Your task to perform on an android device: move a message to another label in the gmail app Image 0: 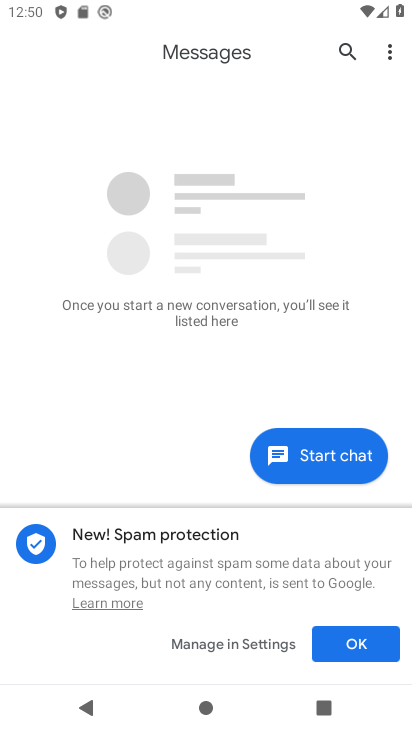
Step 0: press home button
Your task to perform on an android device: move a message to another label in the gmail app Image 1: 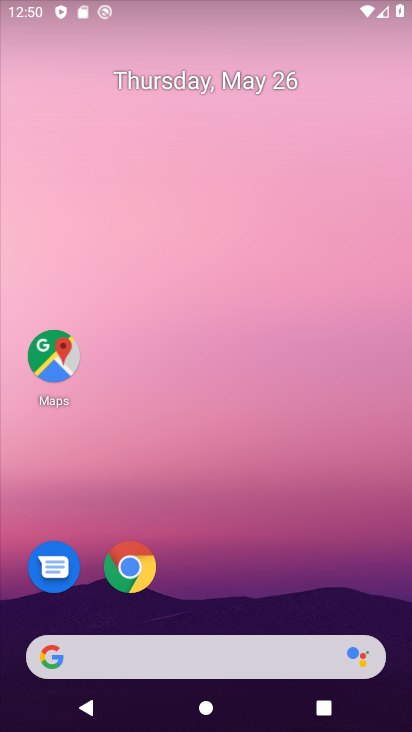
Step 1: drag from (215, 565) to (218, 136)
Your task to perform on an android device: move a message to another label in the gmail app Image 2: 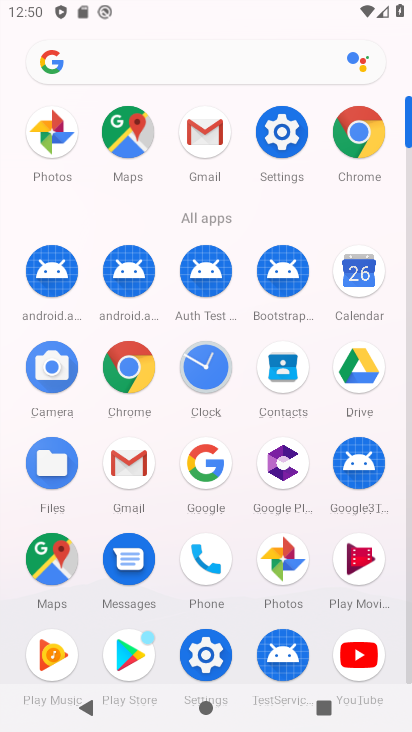
Step 2: click (127, 455)
Your task to perform on an android device: move a message to another label in the gmail app Image 3: 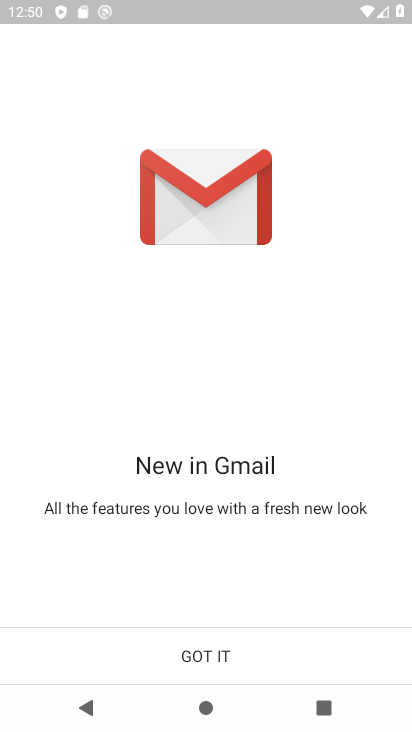
Step 3: click (229, 650)
Your task to perform on an android device: move a message to another label in the gmail app Image 4: 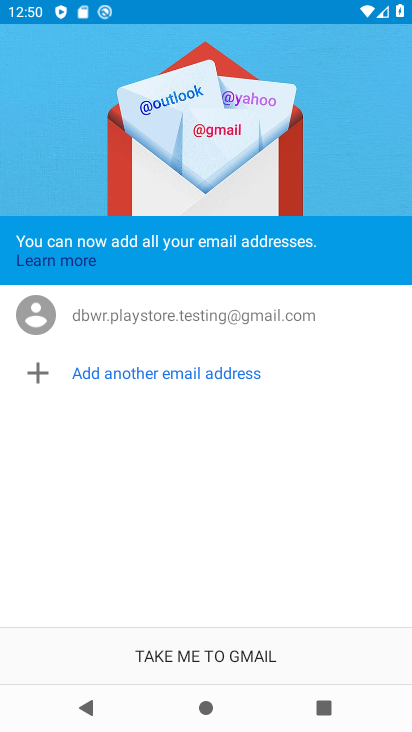
Step 4: click (224, 647)
Your task to perform on an android device: move a message to another label in the gmail app Image 5: 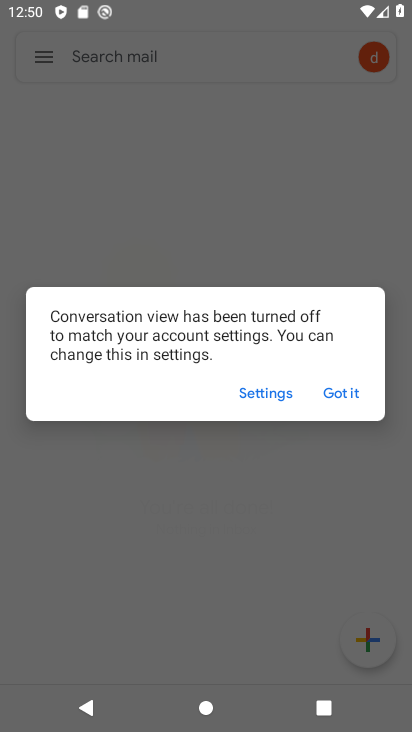
Step 5: click (352, 397)
Your task to perform on an android device: move a message to another label in the gmail app Image 6: 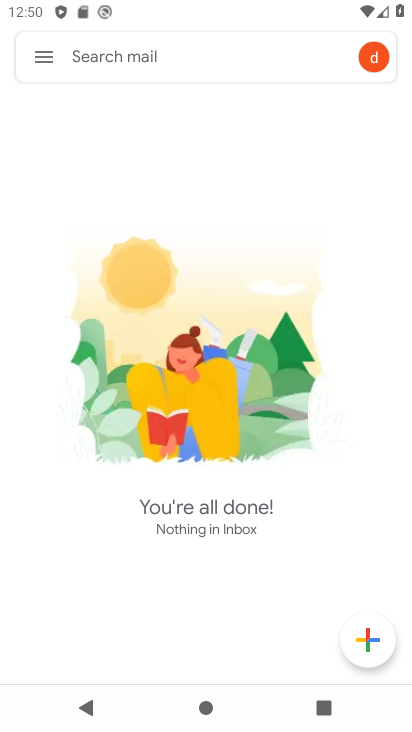
Step 6: click (39, 49)
Your task to perform on an android device: move a message to another label in the gmail app Image 7: 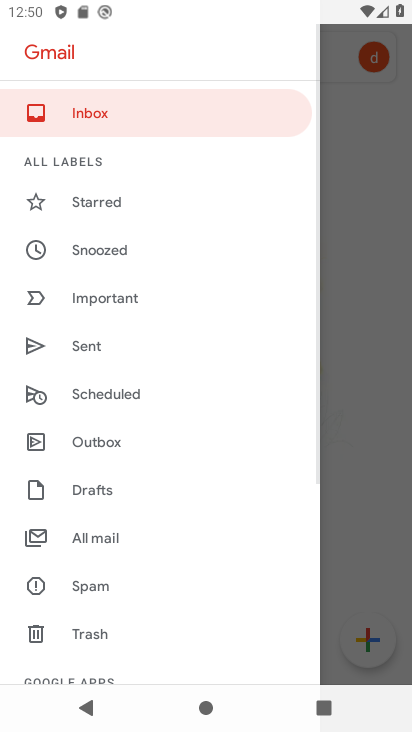
Step 7: click (97, 535)
Your task to perform on an android device: move a message to another label in the gmail app Image 8: 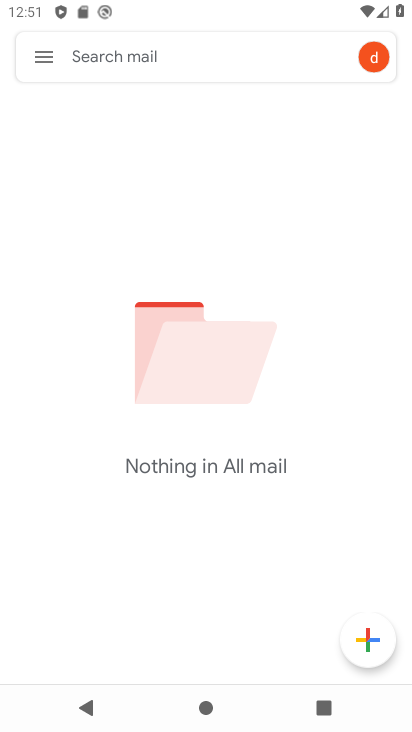
Step 8: task complete